Your task to perform on an android device: Go to accessibility settings Image 0: 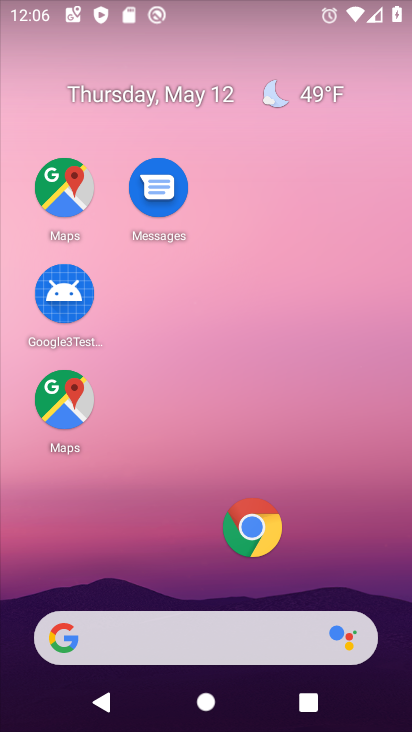
Step 0: drag from (220, 588) to (175, 266)
Your task to perform on an android device: Go to accessibility settings Image 1: 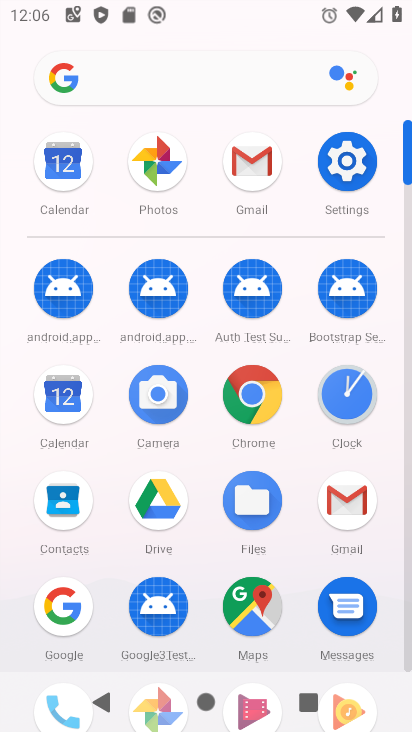
Step 1: click (341, 154)
Your task to perform on an android device: Go to accessibility settings Image 2: 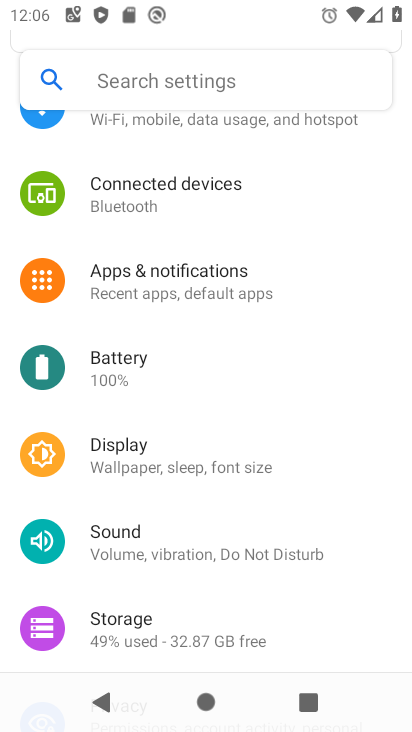
Step 2: drag from (202, 551) to (159, 74)
Your task to perform on an android device: Go to accessibility settings Image 3: 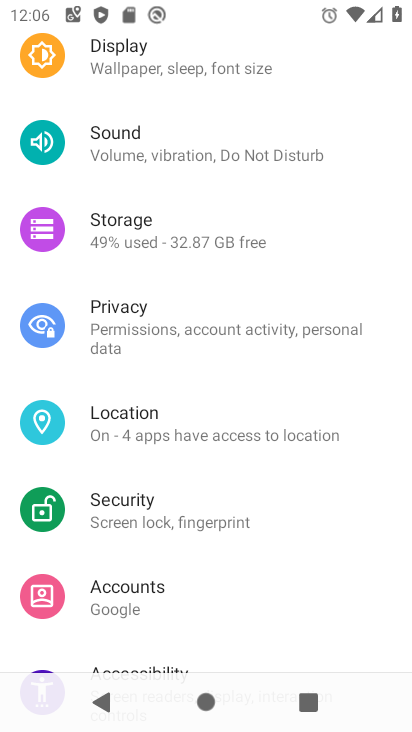
Step 3: click (192, 654)
Your task to perform on an android device: Go to accessibility settings Image 4: 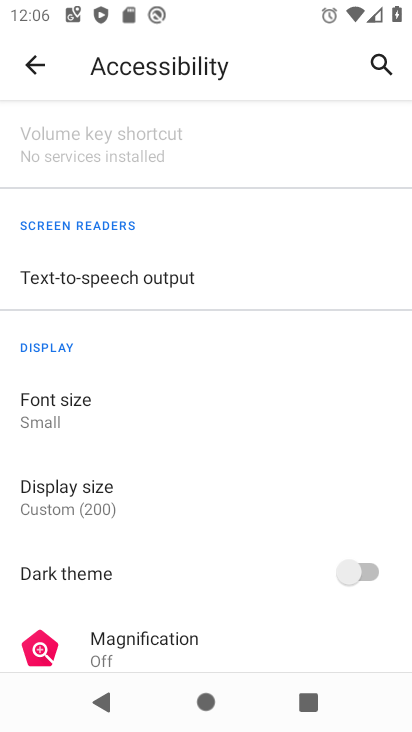
Step 4: task complete